Your task to perform on an android device: Go to battery settings Image 0: 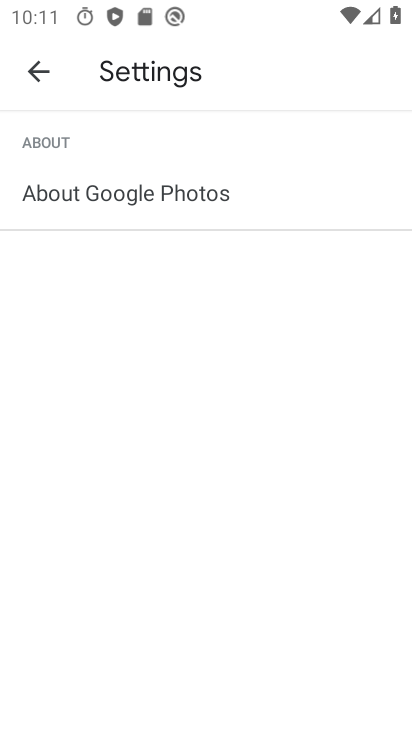
Step 0: press home button
Your task to perform on an android device: Go to battery settings Image 1: 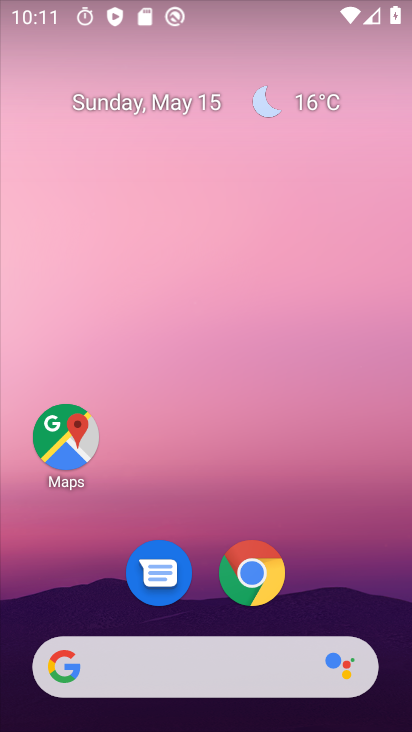
Step 1: drag from (199, 614) to (226, 86)
Your task to perform on an android device: Go to battery settings Image 2: 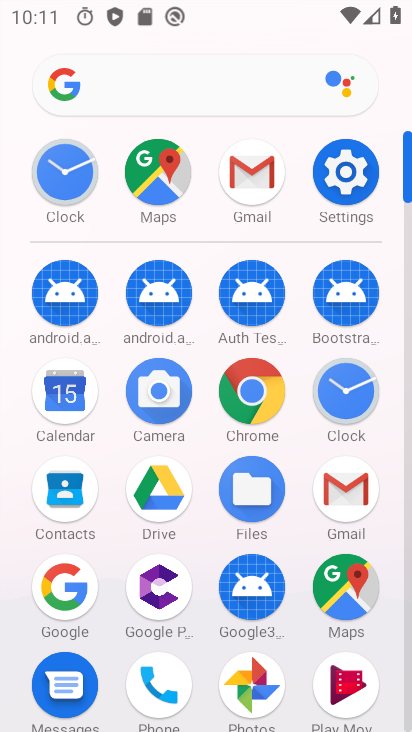
Step 2: click (344, 169)
Your task to perform on an android device: Go to battery settings Image 3: 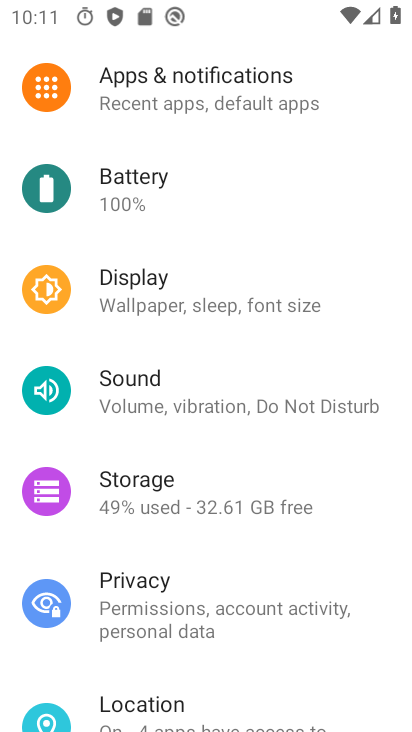
Step 3: drag from (186, 672) to (203, 381)
Your task to perform on an android device: Go to battery settings Image 4: 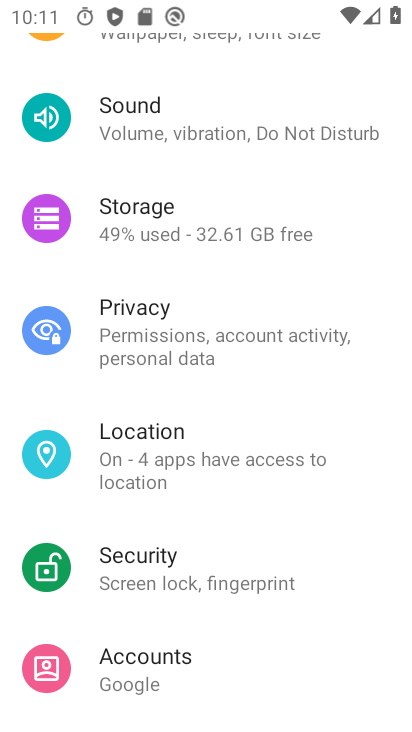
Step 4: drag from (208, 234) to (185, 577)
Your task to perform on an android device: Go to battery settings Image 5: 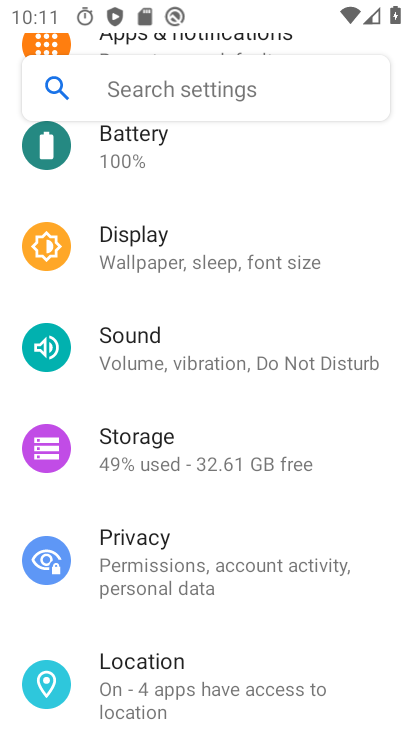
Step 5: click (120, 144)
Your task to perform on an android device: Go to battery settings Image 6: 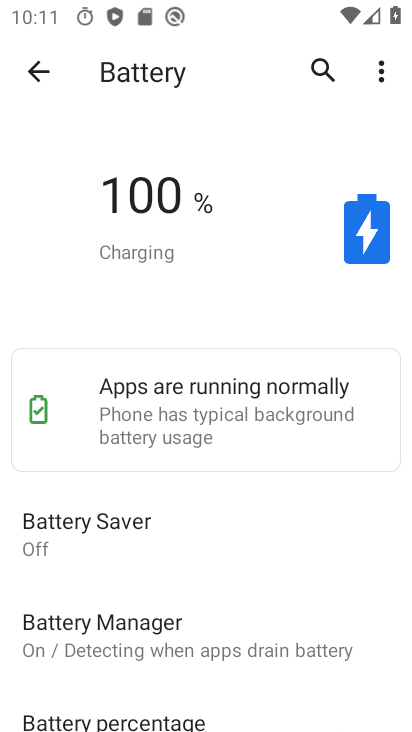
Step 6: task complete